Your task to perform on an android device: Open Chrome and go to settings Image 0: 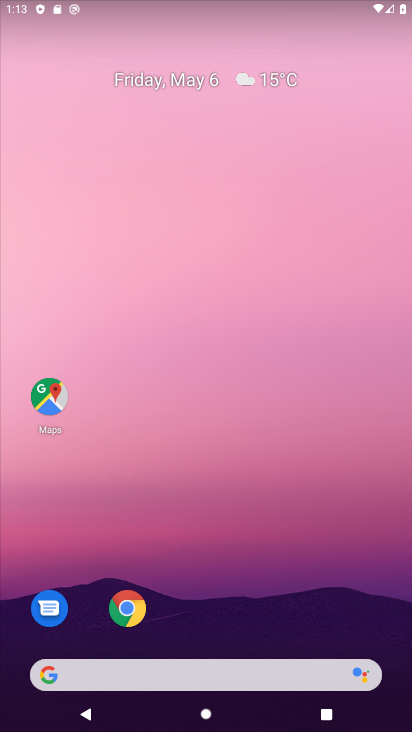
Step 0: click (138, 608)
Your task to perform on an android device: Open Chrome and go to settings Image 1: 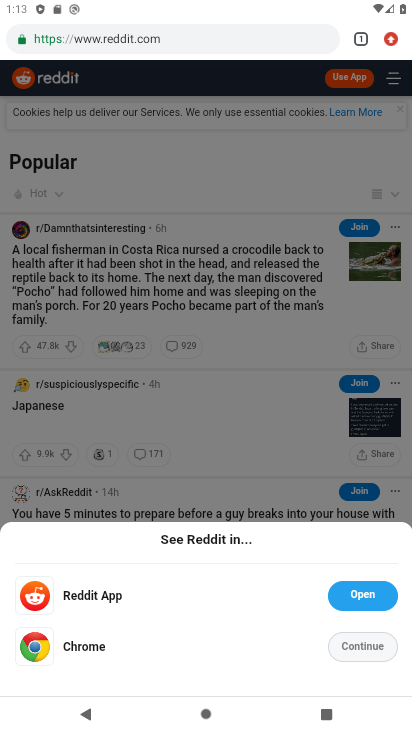
Step 1: task complete